Your task to perform on an android device: add a label to a message in the gmail app Image 0: 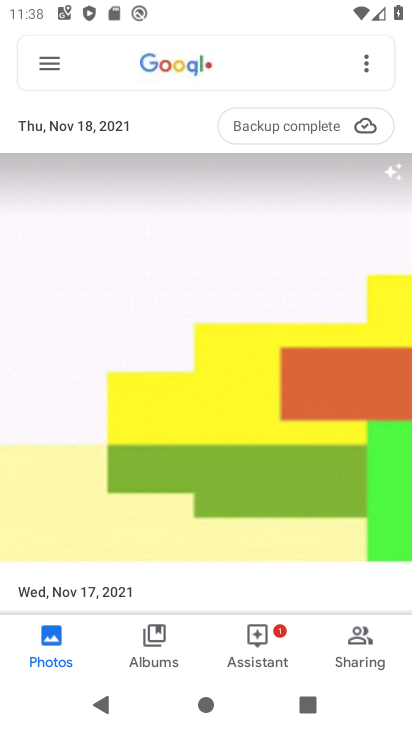
Step 0: press home button
Your task to perform on an android device: add a label to a message in the gmail app Image 1: 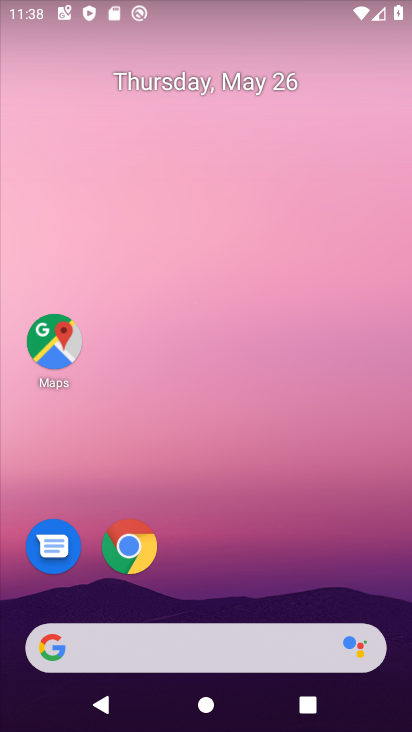
Step 1: drag from (212, 484) to (106, 30)
Your task to perform on an android device: add a label to a message in the gmail app Image 2: 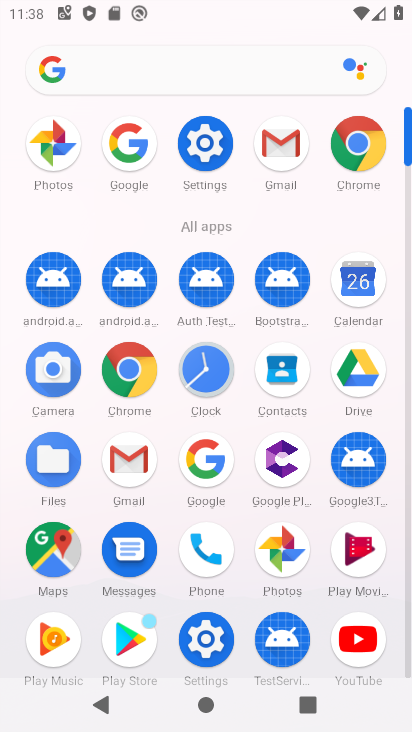
Step 2: click (283, 148)
Your task to perform on an android device: add a label to a message in the gmail app Image 3: 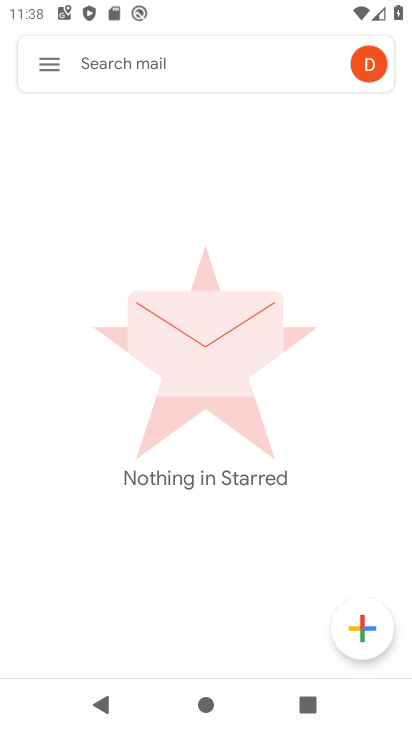
Step 3: click (45, 59)
Your task to perform on an android device: add a label to a message in the gmail app Image 4: 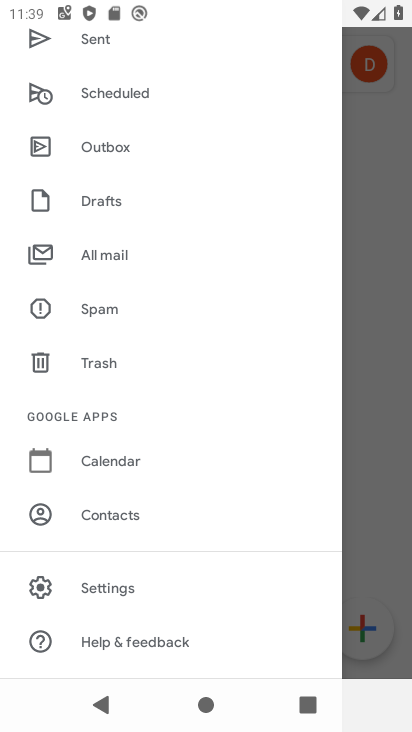
Step 4: click (105, 253)
Your task to perform on an android device: add a label to a message in the gmail app Image 5: 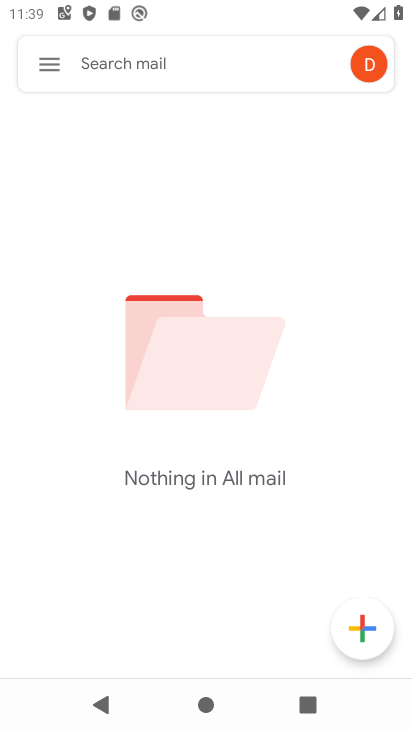
Step 5: task complete